Your task to perform on an android device: Open the map Image 0: 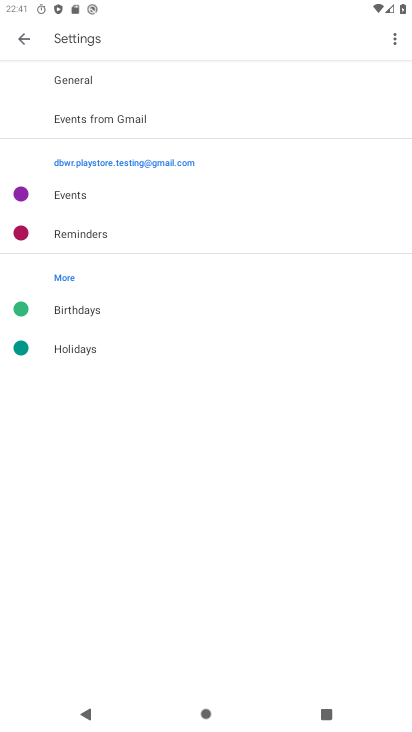
Step 0: press home button
Your task to perform on an android device: Open the map Image 1: 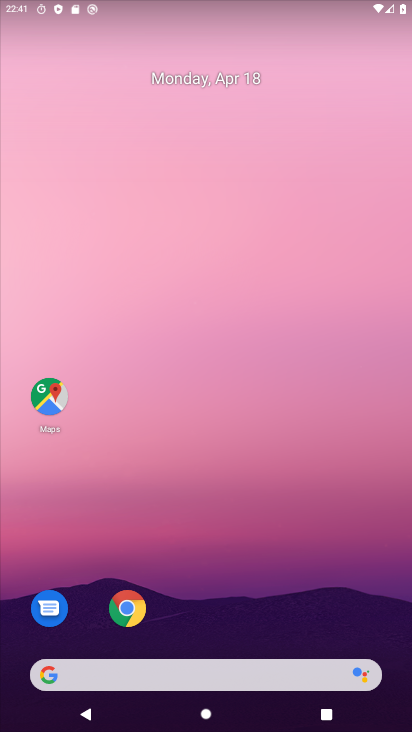
Step 1: click (241, 596)
Your task to perform on an android device: Open the map Image 2: 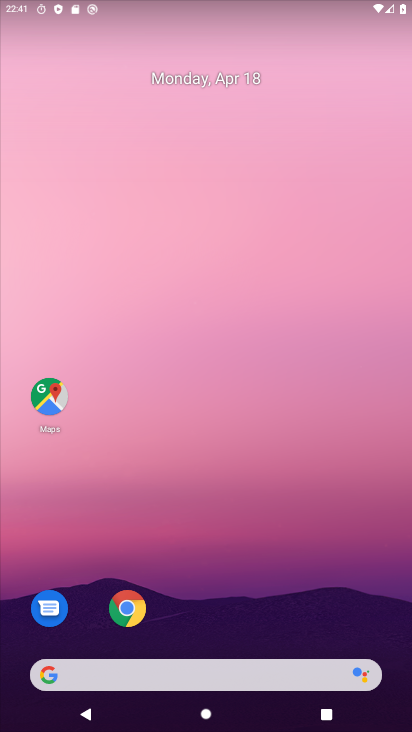
Step 2: click (54, 393)
Your task to perform on an android device: Open the map Image 3: 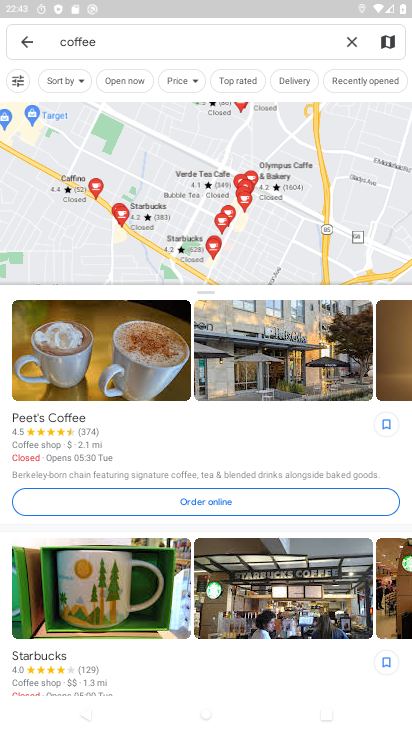
Step 3: task complete